Your task to perform on an android device: Is it going to rain tomorrow? Image 0: 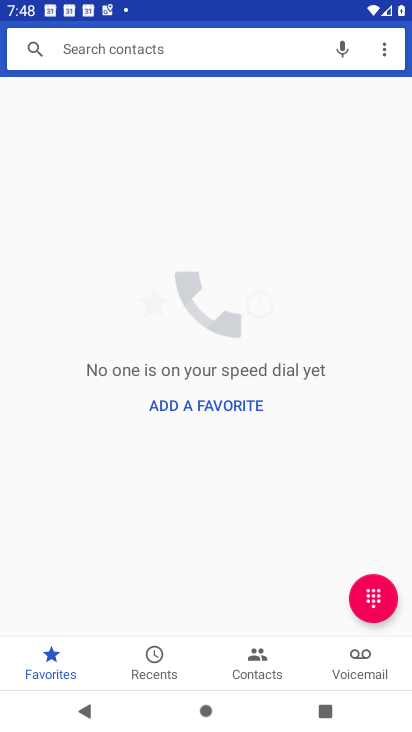
Step 0: press home button
Your task to perform on an android device: Is it going to rain tomorrow? Image 1: 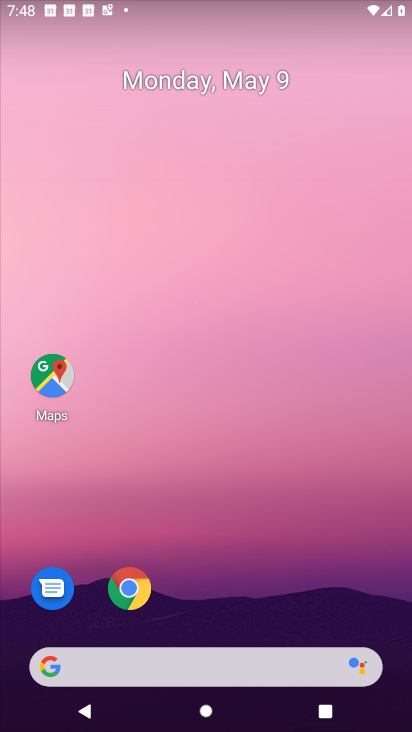
Step 1: click (52, 667)
Your task to perform on an android device: Is it going to rain tomorrow? Image 2: 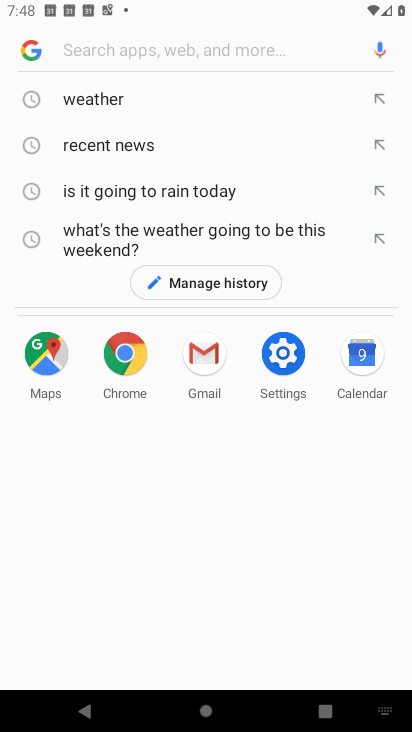
Step 2: click (122, 97)
Your task to perform on an android device: Is it going to rain tomorrow? Image 3: 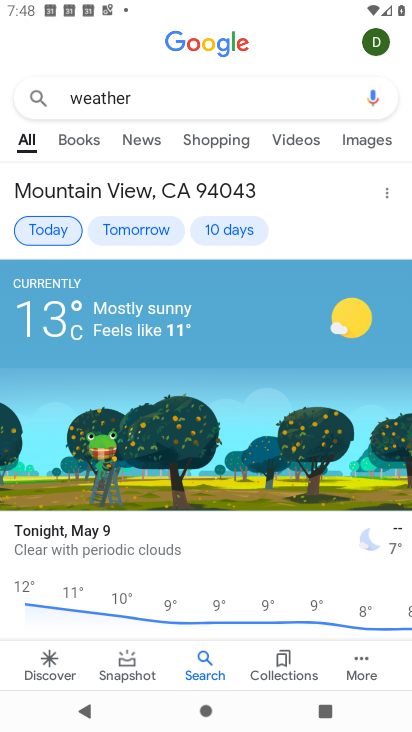
Step 3: click (126, 232)
Your task to perform on an android device: Is it going to rain tomorrow? Image 4: 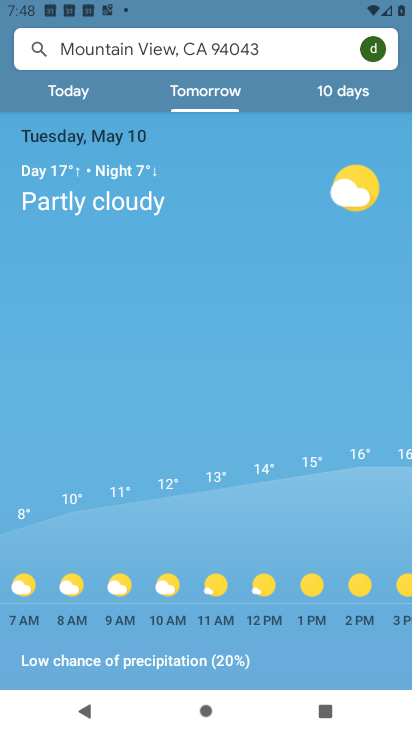
Step 4: task complete